Your task to perform on an android device: check data usage Image 0: 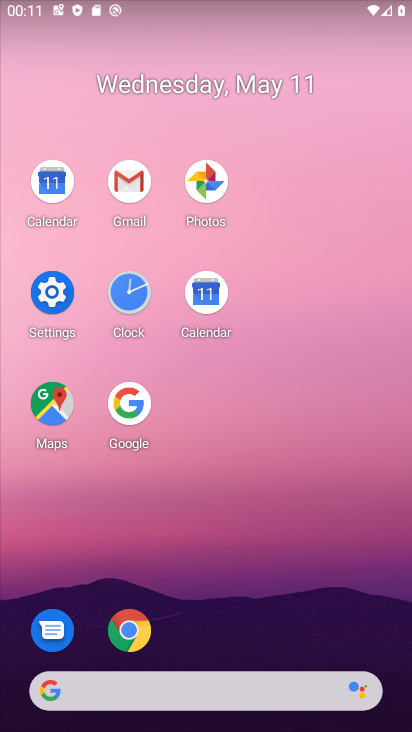
Step 0: click (70, 304)
Your task to perform on an android device: check data usage Image 1: 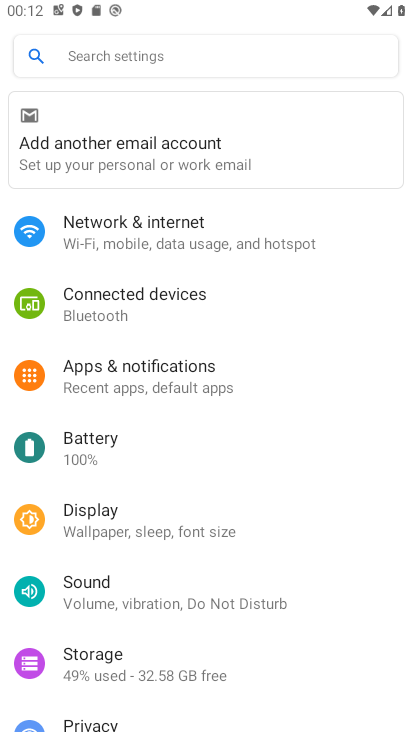
Step 1: click (212, 246)
Your task to perform on an android device: check data usage Image 2: 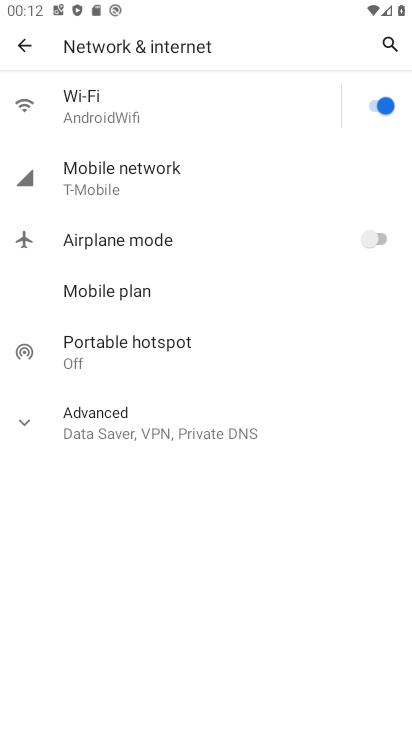
Step 2: click (137, 167)
Your task to perform on an android device: check data usage Image 3: 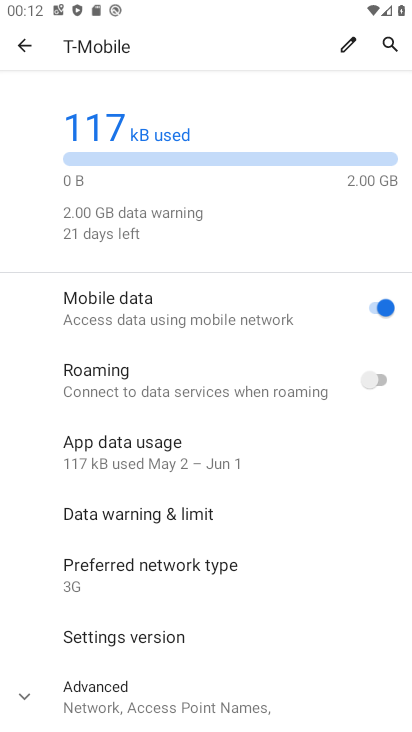
Step 3: task complete